Your task to perform on an android device: toggle show notifications on the lock screen Image 0: 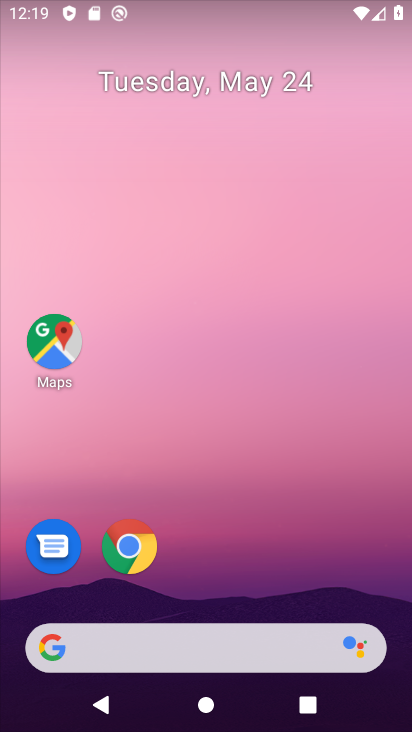
Step 0: drag from (250, 665) to (271, 9)
Your task to perform on an android device: toggle show notifications on the lock screen Image 1: 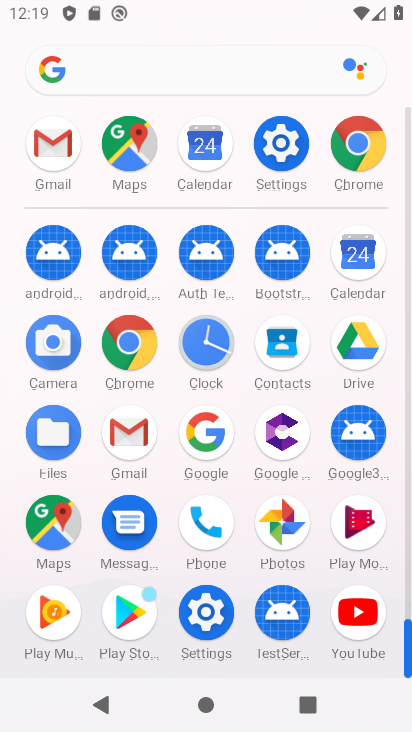
Step 1: click (295, 135)
Your task to perform on an android device: toggle show notifications on the lock screen Image 2: 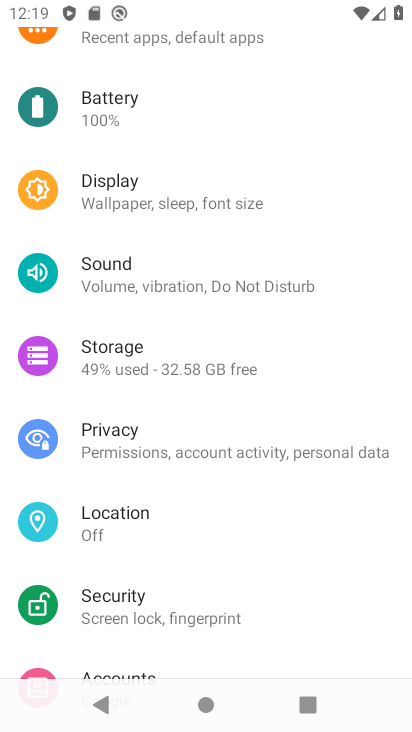
Step 2: drag from (260, 215) to (253, 694)
Your task to perform on an android device: toggle show notifications on the lock screen Image 3: 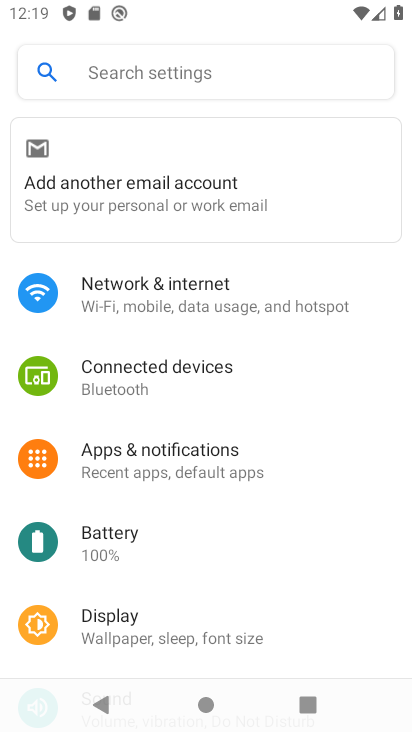
Step 3: click (178, 452)
Your task to perform on an android device: toggle show notifications on the lock screen Image 4: 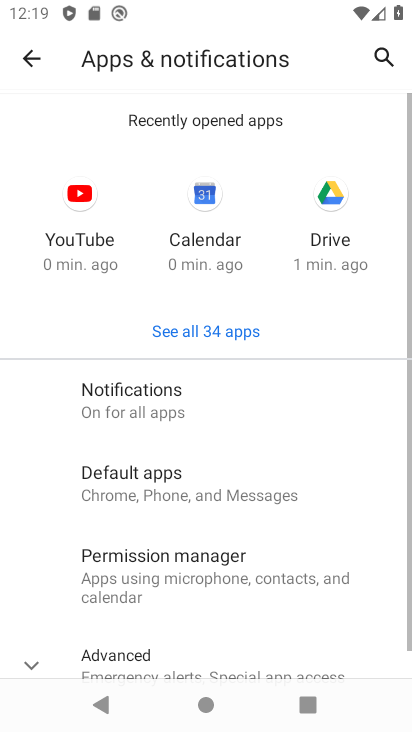
Step 4: drag from (241, 608) to (268, 286)
Your task to perform on an android device: toggle show notifications on the lock screen Image 5: 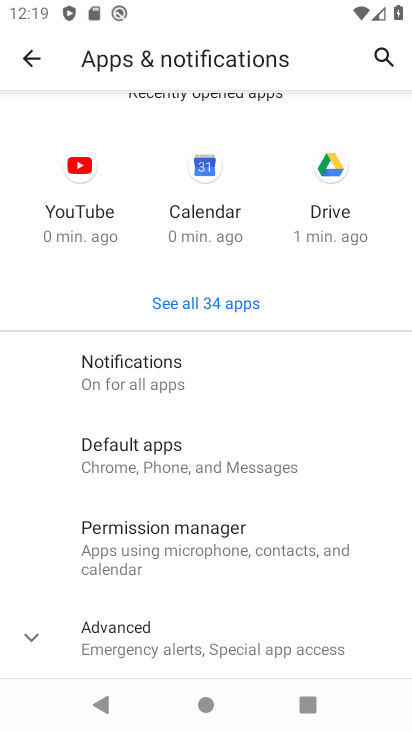
Step 5: click (187, 368)
Your task to perform on an android device: toggle show notifications on the lock screen Image 6: 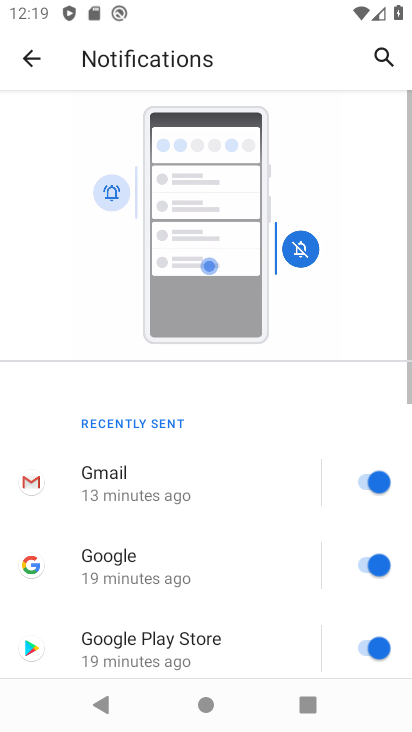
Step 6: drag from (288, 612) to (360, 69)
Your task to perform on an android device: toggle show notifications on the lock screen Image 7: 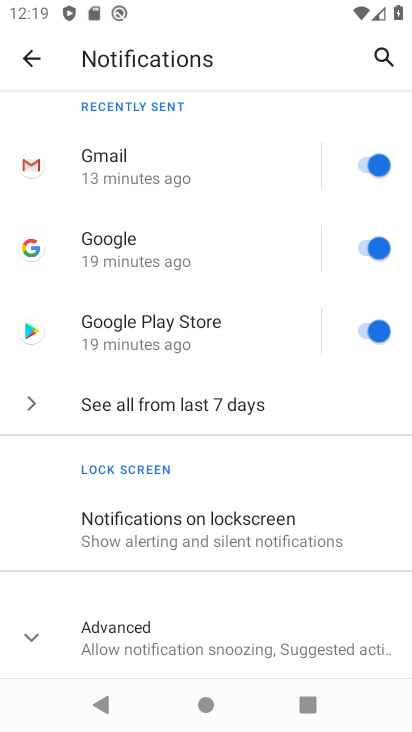
Step 7: click (208, 504)
Your task to perform on an android device: toggle show notifications on the lock screen Image 8: 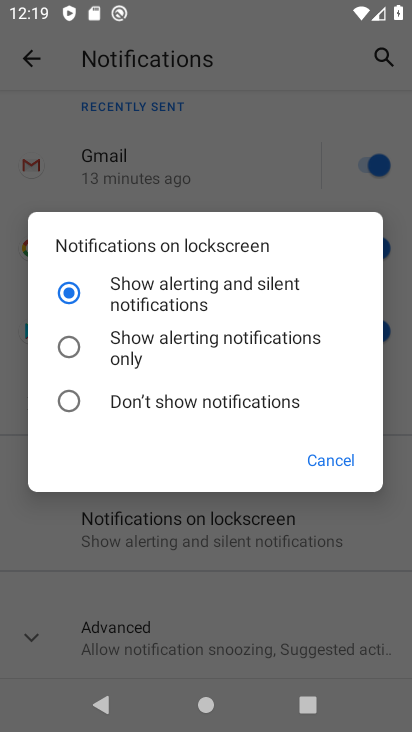
Step 8: click (52, 342)
Your task to perform on an android device: toggle show notifications on the lock screen Image 9: 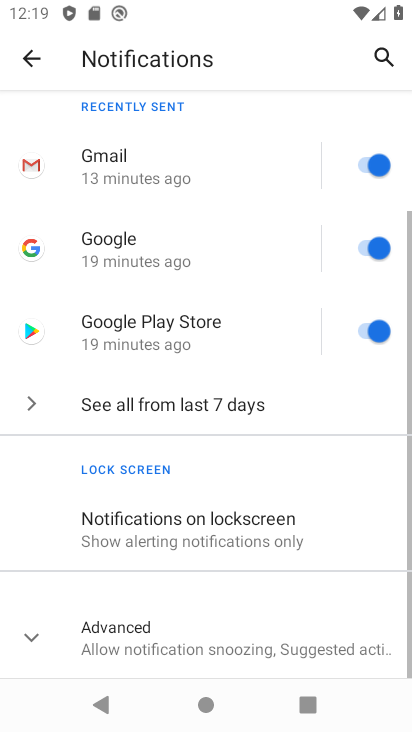
Step 9: task complete